Your task to perform on an android device: Show me productivity apps on the Play Store Image 0: 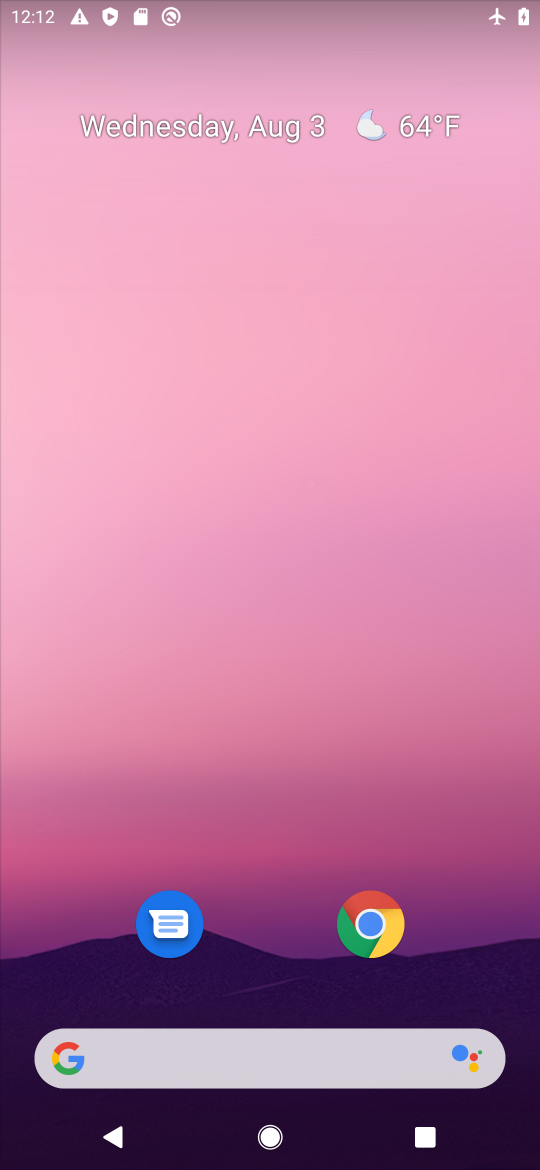
Step 0: drag from (281, 561) to (389, 119)
Your task to perform on an android device: Show me productivity apps on the Play Store Image 1: 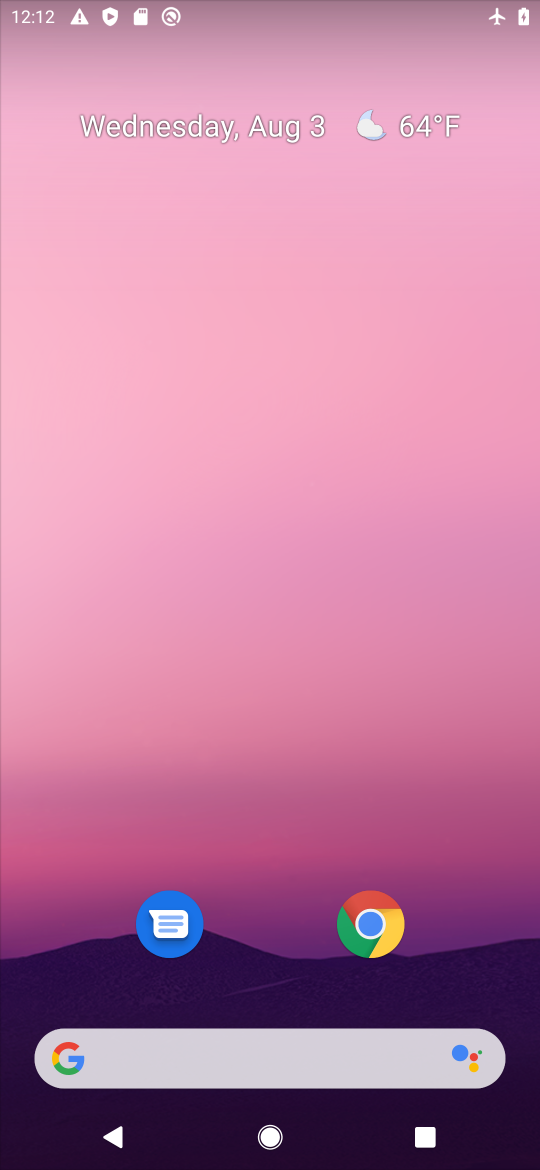
Step 1: drag from (87, 869) to (167, 26)
Your task to perform on an android device: Show me productivity apps on the Play Store Image 2: 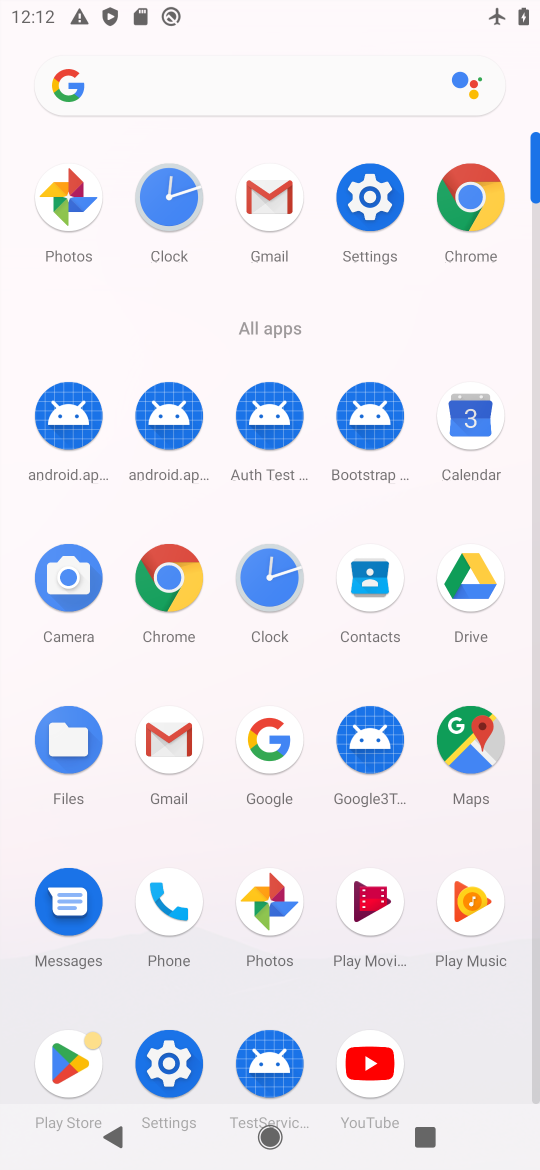
Step 2: click (79, 1062)
Your task to perform on an android device: Show me productivity apps on the Play Store Image 3: 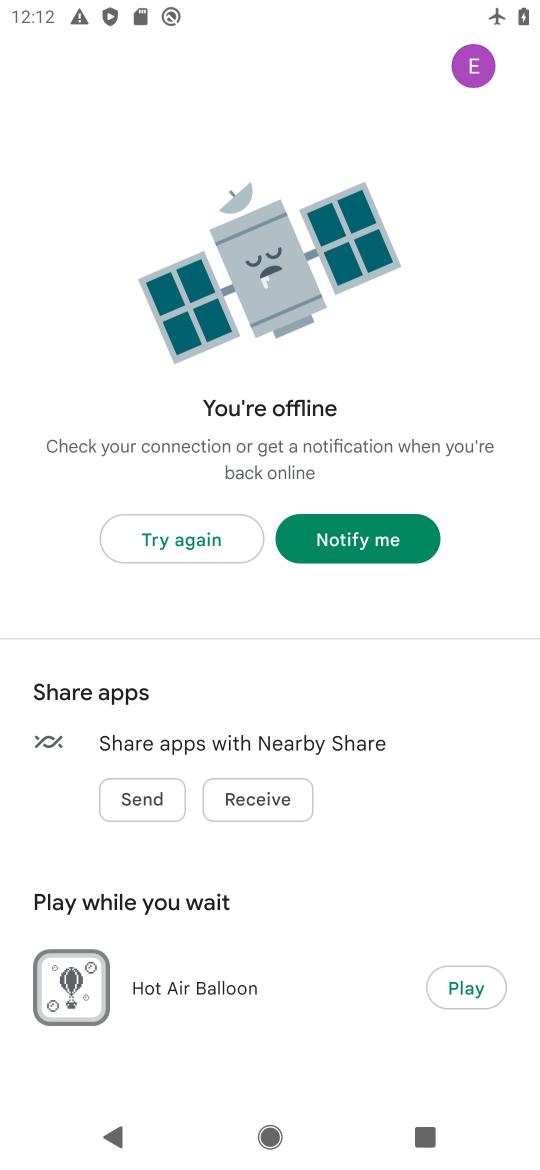
Step 3: click (179, 542)
Your task to perform on an android device: Show me productivity apps on the Play Store Image 4: 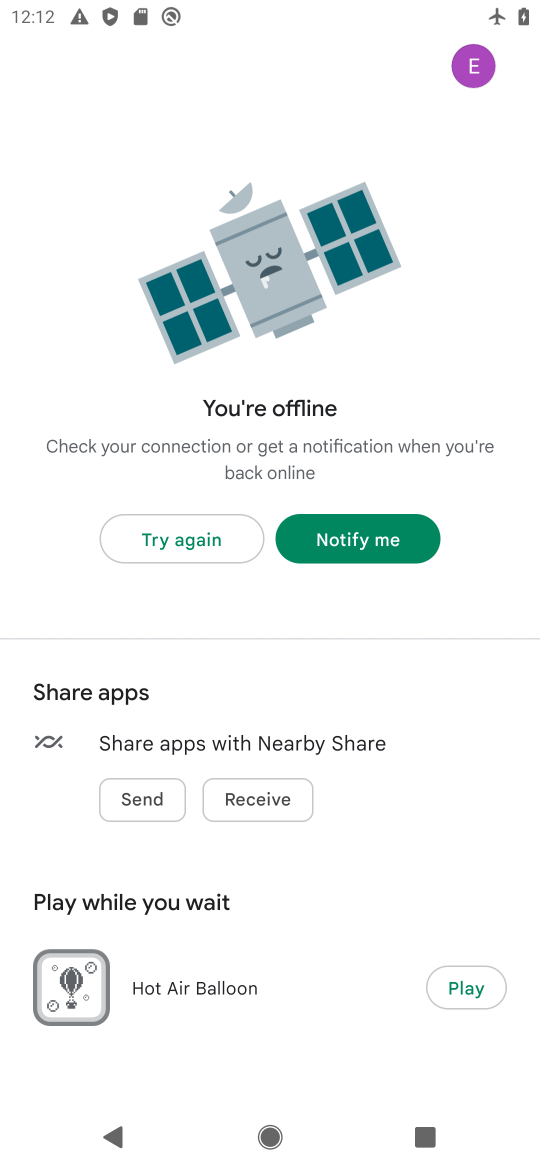
Step 4: press back button
Your task to perform on an android device: Show me productivity apps on the Play Store Image 5: 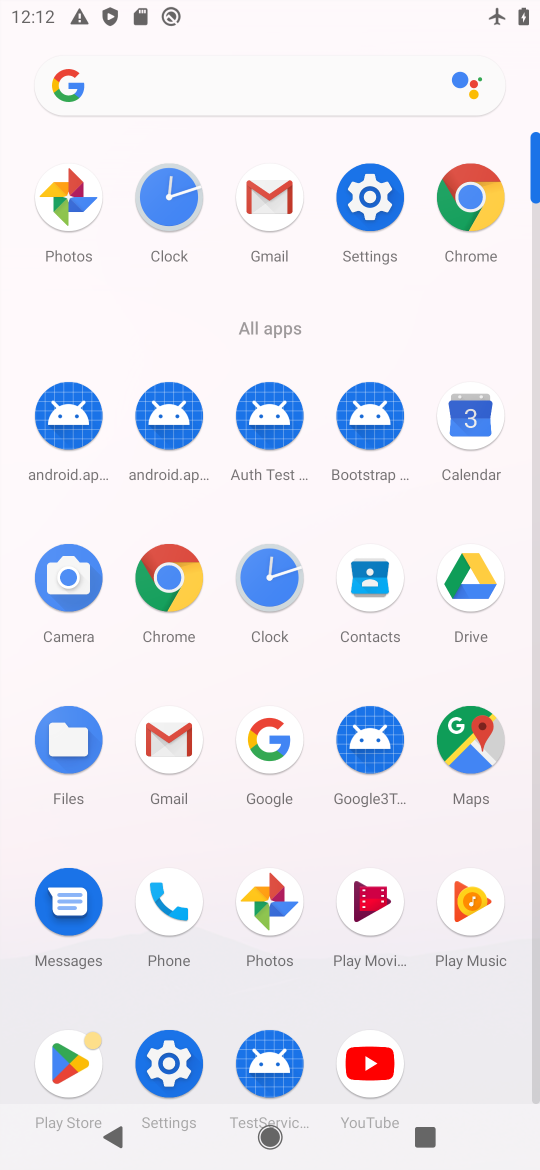
Step 5: drag from (491, 24) to (435, 926)
Your task to perform on an android device: Show me productivity apps on the Play Store Image 6: 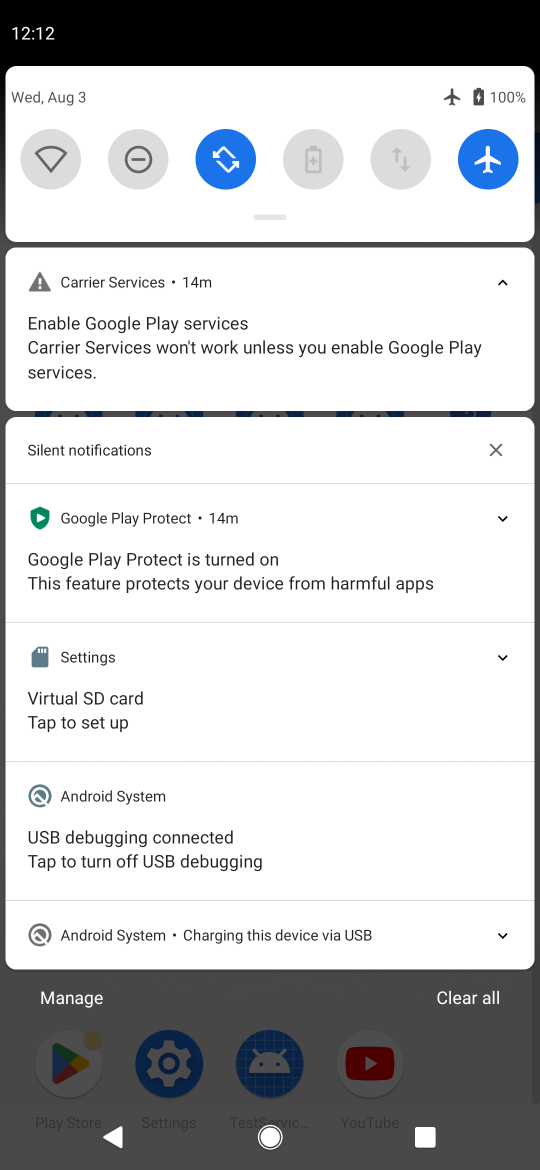
Step 6: click (501, 155)
Your task to perform on an android device: Show me productivity apps on the Play Store Image 7: 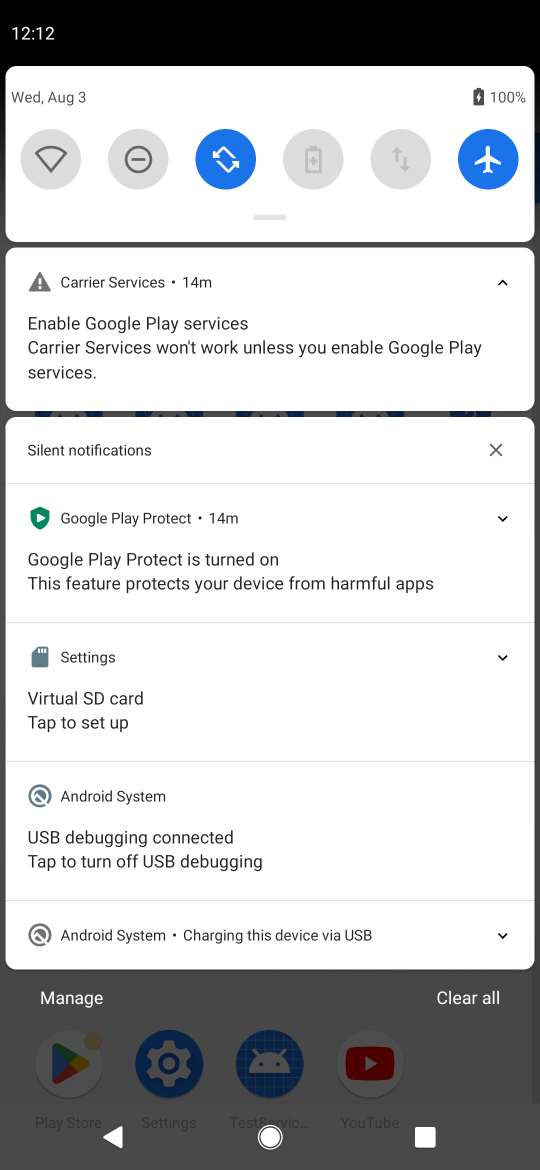
Step 7: click (337, 995)
Your task to perform on an android device: Show me productivity apps on the Play Store Image 8: 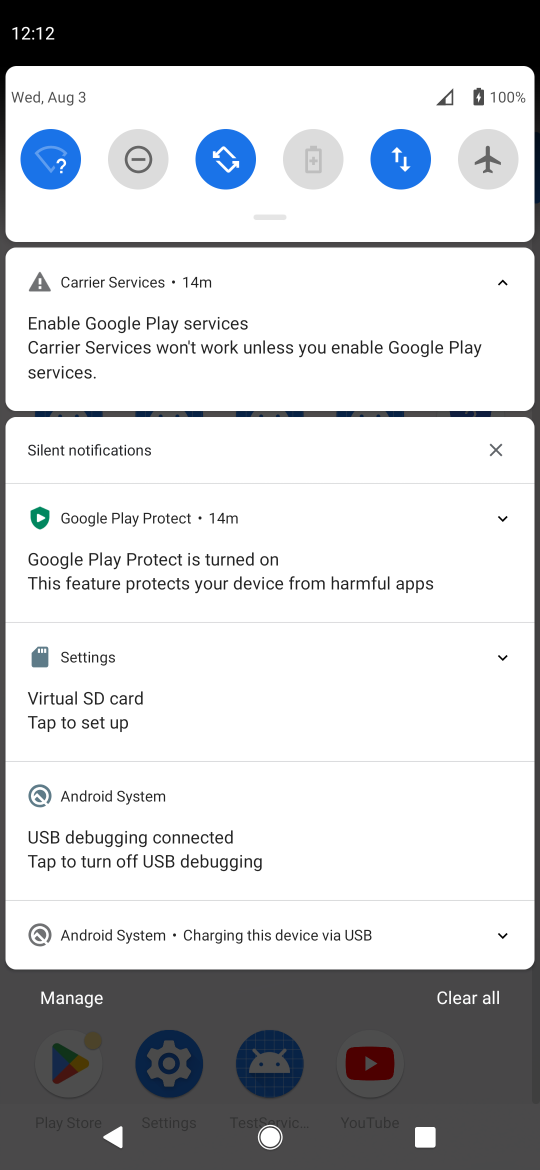
Step 8: drag from (167, 946) to (271, 97)
Your task to perform on an android device: Show me productivity apps on the Play Store Image 9: 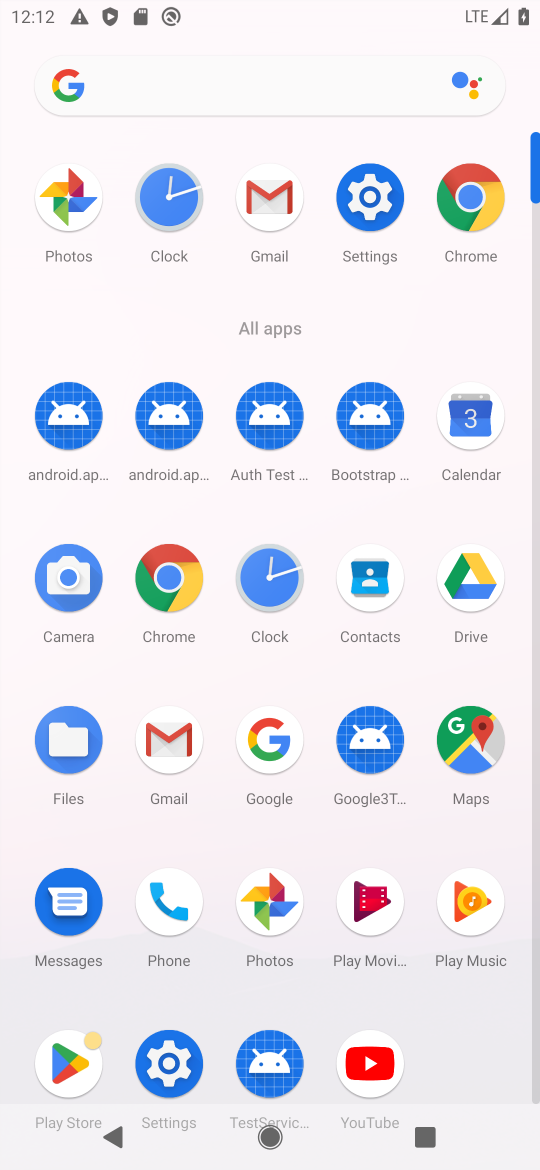
Step 9: click (78, 1072)
Your task to perform on an android device: Show me productivity apps on the Play Store Image 10: 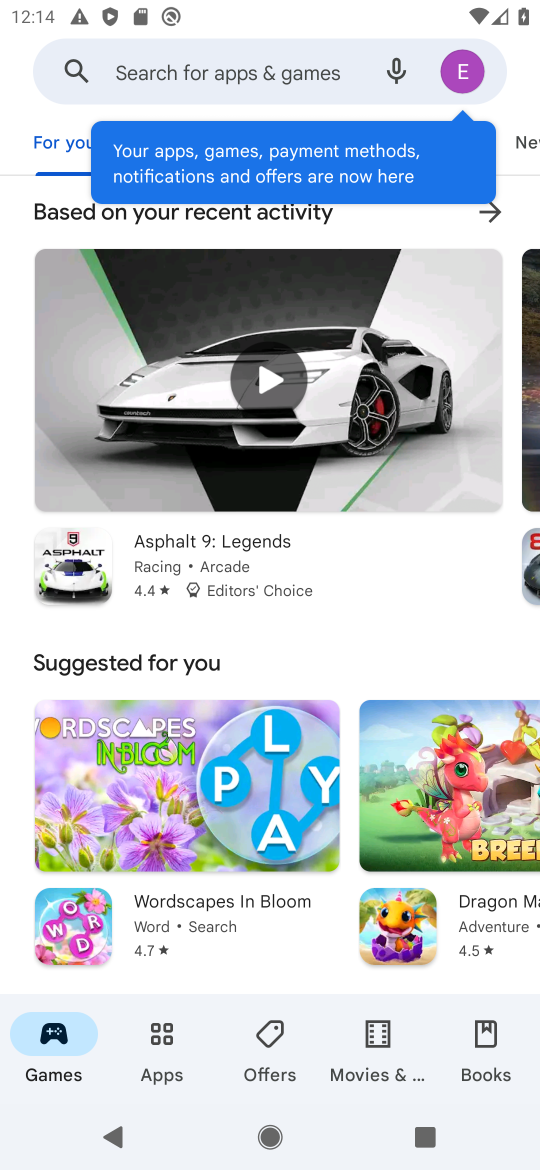
Step 10: click (154, 1074)
Your task to perform on an android device: Show me productivity apps on the Play Store Image 11: 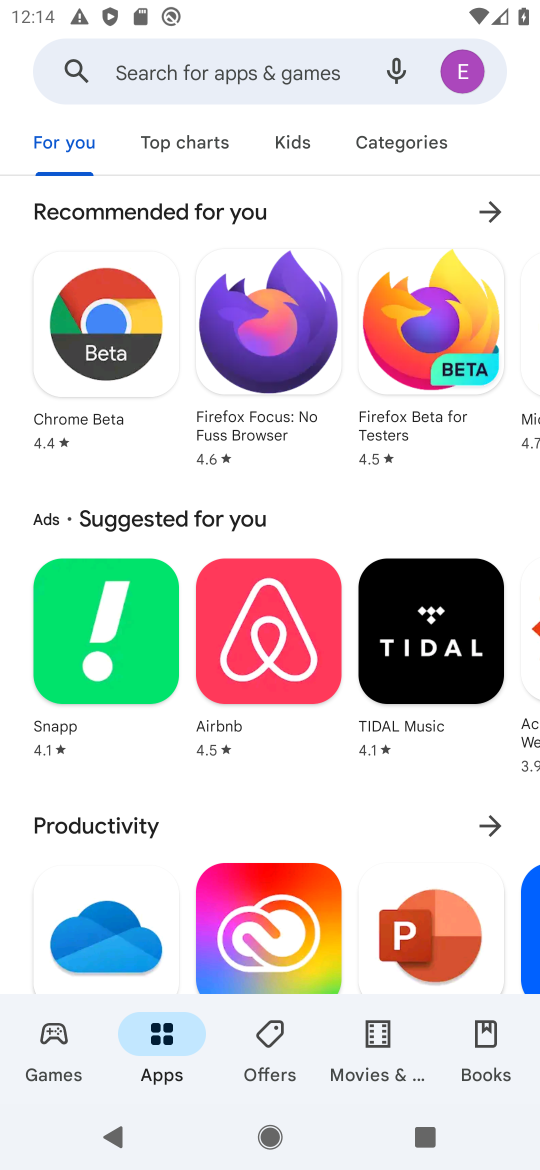
Step 11: click (473, 808)
Your task to perform on an android device: Show me productivity apps on the Play Store Image 12: 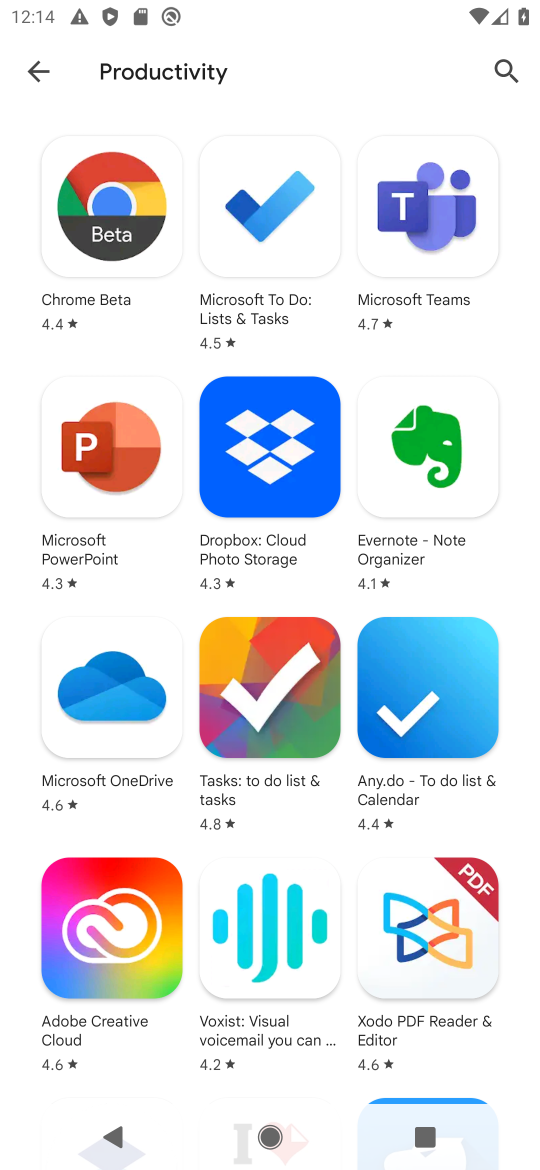
Step 12: task complete